Your task to perform on an android device: toggle show notifications on the lock screen Image 0: 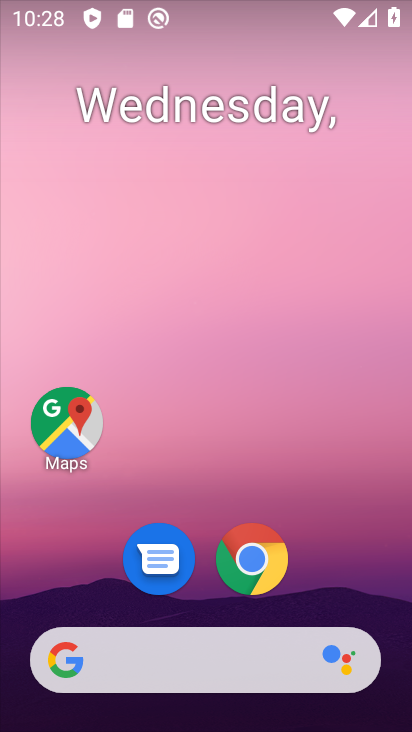
Step 0: drag from (320, 550) to (281, 29)
Your task to perform on an android device: toggle show notifications on the lock screen Image 1: 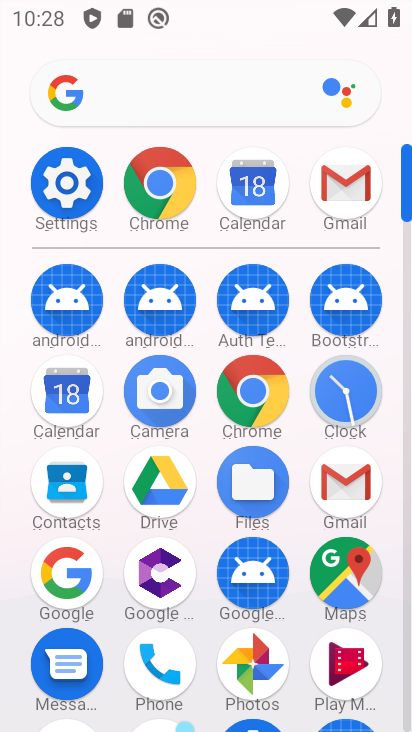
Step 1: click (249, 651)
Your task to perform on an android device: toggle show notifications on the lock screen Image 2: 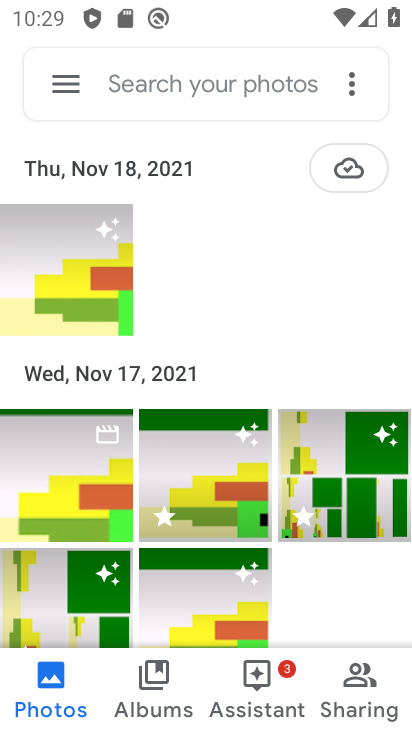
Step 2: press home button
Your task to perform on an android device: toggle show notifications on the lock screen Image 3: 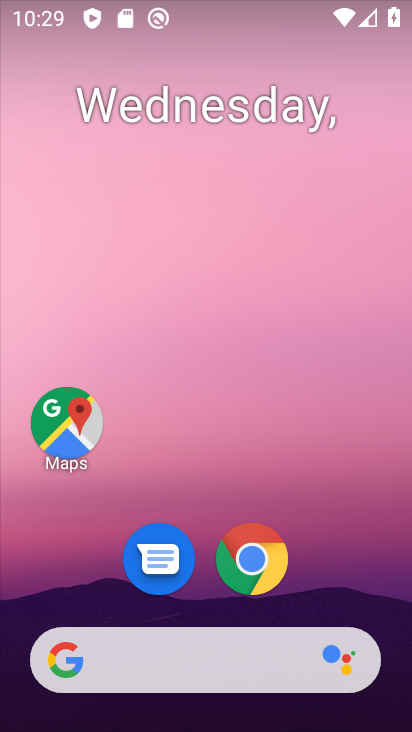
Step 3: drag from (388, 319) to (349, 10)
Your task to perform on an android device: toggle show notifications on the lock screen Image 4: 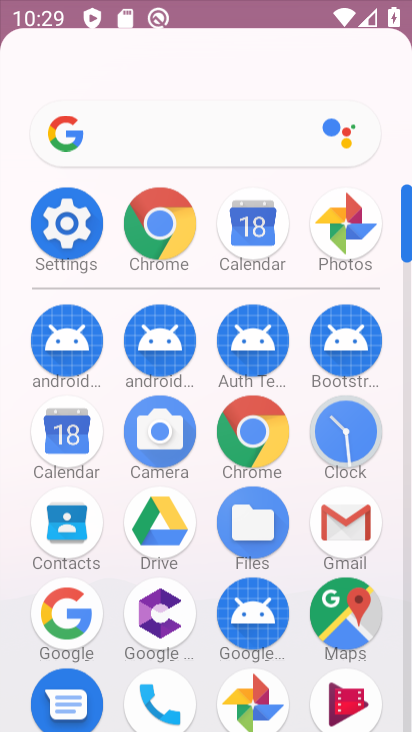
Step 4: drag from (396, 327) to (389, 142)
Your task to perform on an android device: toggle show notifications on the lock screen Image 5: 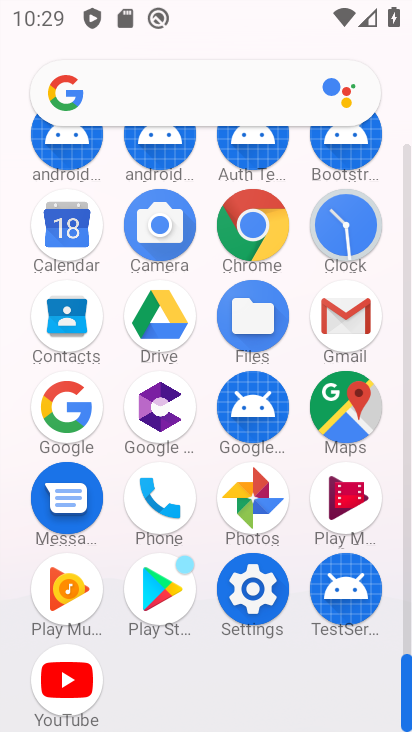
Step 5: drag from (397, 314) to (367, 536)
Your task to perform on an android device: toggle show notifications on the lock screen Image 6: 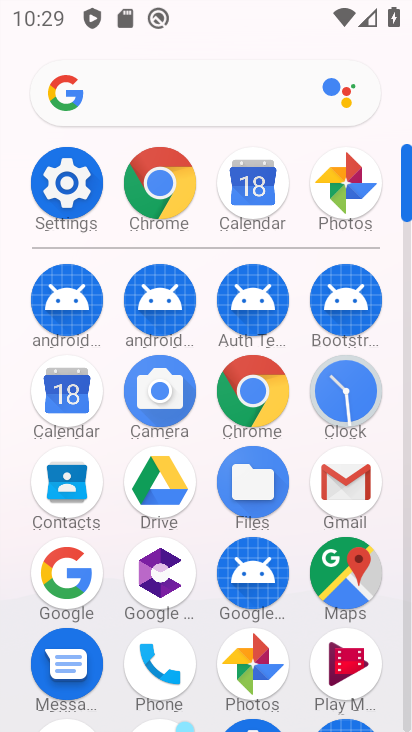
Step 6: click (76, 210)
Your task to perform on an android device: toggle show notifications on the lock screen Image 7: 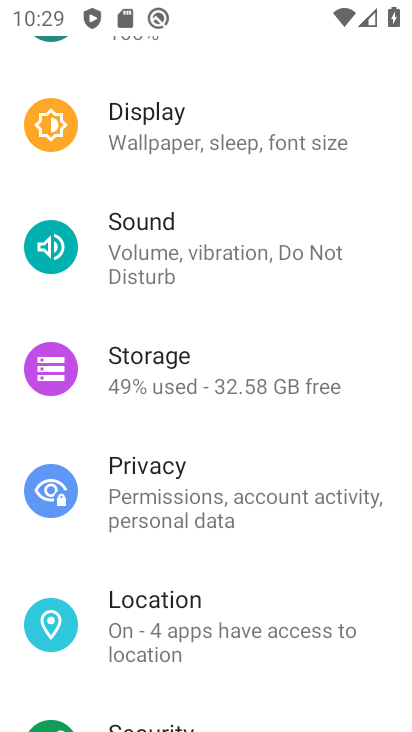
Step 7: drag from (277, 228) to (296, 680)
Your task to perform on an android device: toggle show notifications on the lock screen Image 8: 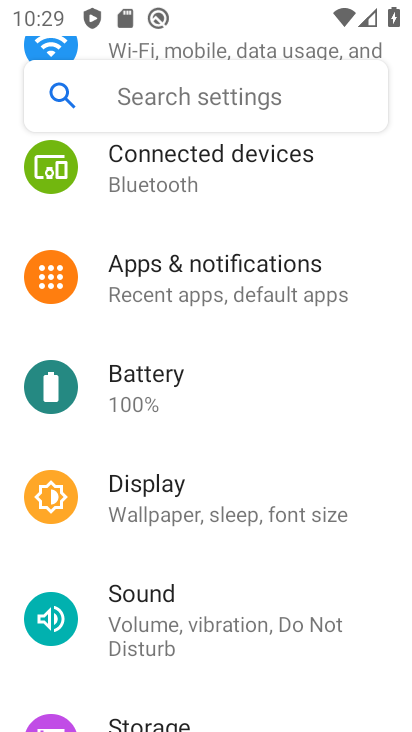
Step 8: drag from (255, 159) to (291, 572)
Your task to perform on an android device: toggle show notifications on the lock screen Image 9: 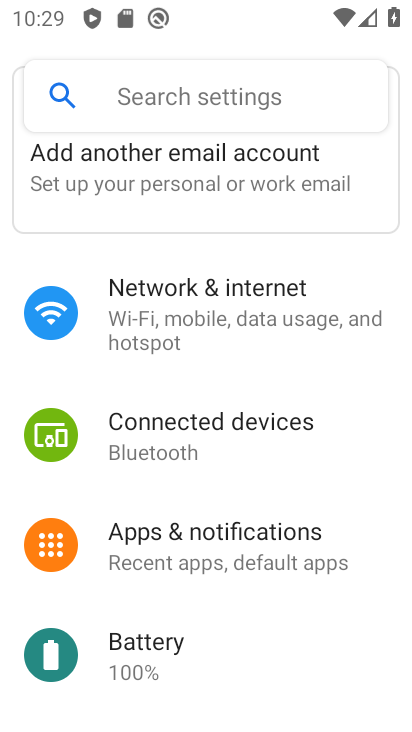
Step 9: click (264, 536)
Your task to perform on an android device: toggle show notifications on the lock screen Image 10: 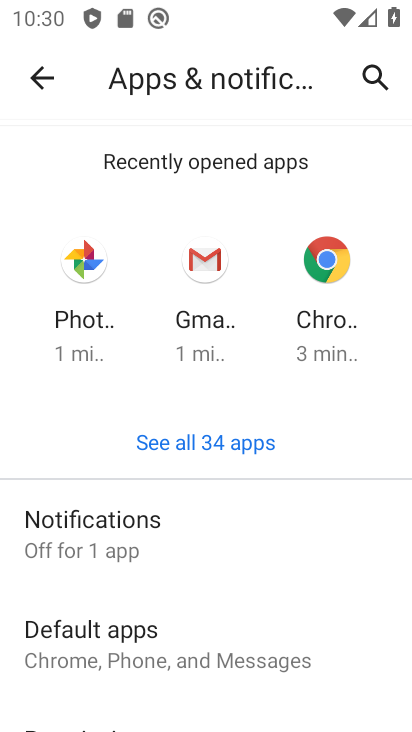
Step 10: click (106, 527)
Your task to perform on an android device: toggle show notifications on the lock screen Image 11: 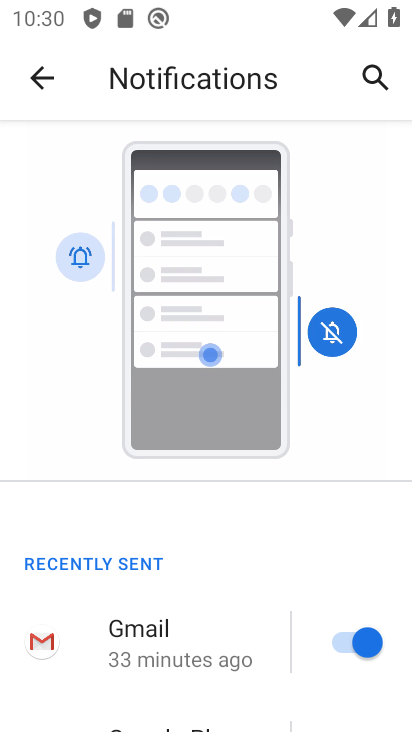
Step 11: drag from (168, 594) to (79, 216)
Your task to perform on an android device: toggle show notifications on the lock screen Image 12: 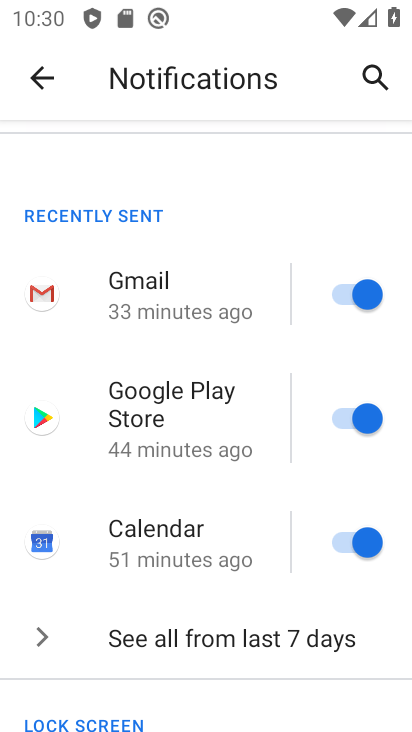
Step 12: drag from (167, 530) to (185, 210)
Your task to perform on an android device: toggle show notifications on the lock screen Image 13: 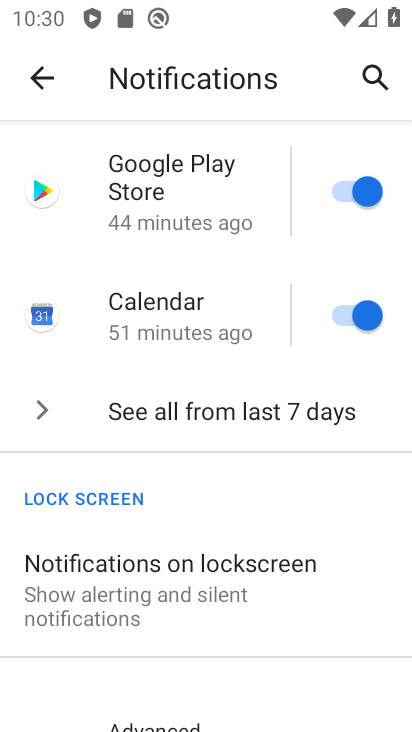
Step 13: click (169, 557)
Your task to perform on an android device: toggle show notifications on the lock screen Image 14: 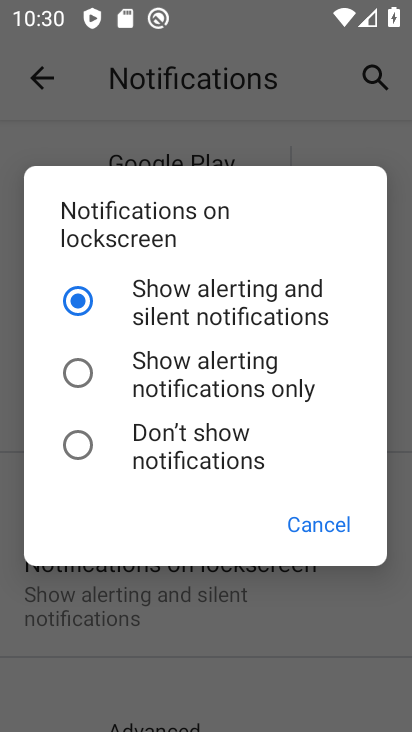
Step 14: click (73, 367)
Your task to perform on an android device: toggle show notifications on the lock screen Image 15: 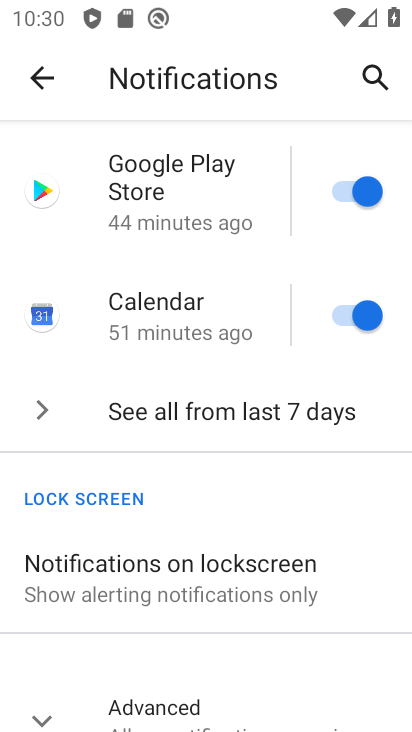
Step 15: task complete